Your task to perform on an android device: Open calendar and show me the third week of next month Image 0: 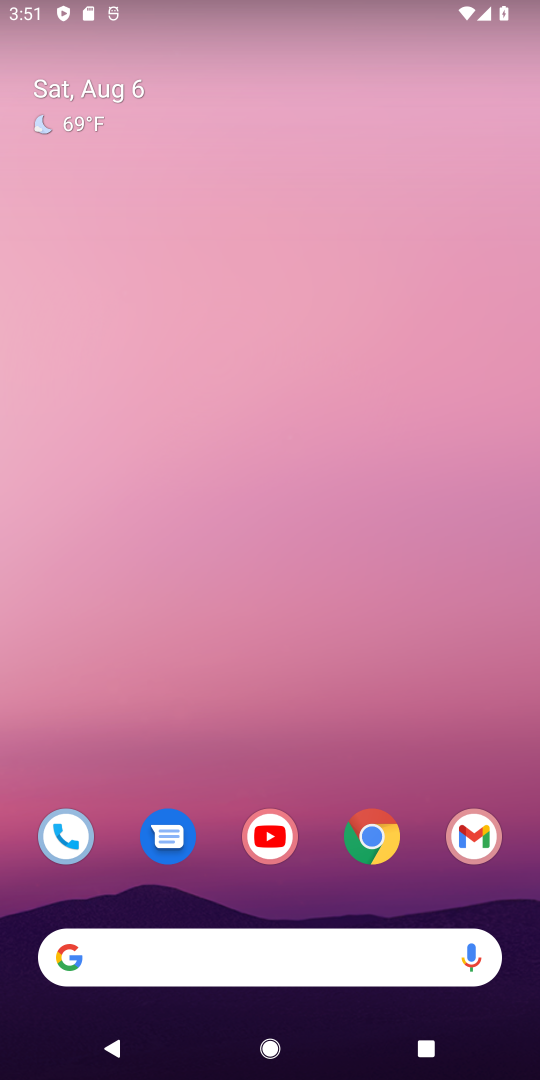
Step 0: drag from (322, 902) to (191, 80)
Your task to perform on an android device: Open calendar and show me the third week of next month Image 1: 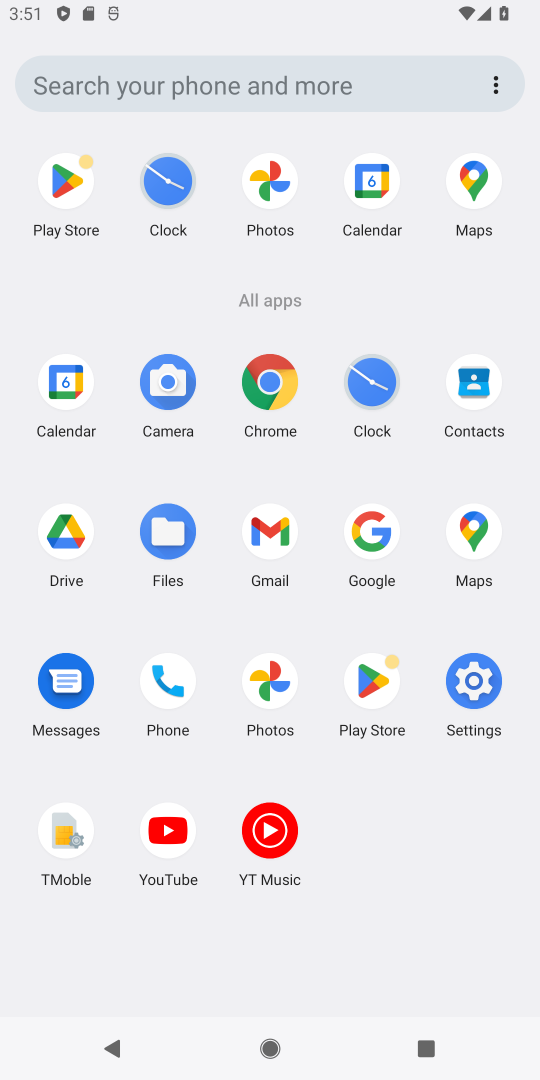
Step 1: click (52, 393)
Your task to perform on an android device: Open calendar and show me the third week of next month Image 2: 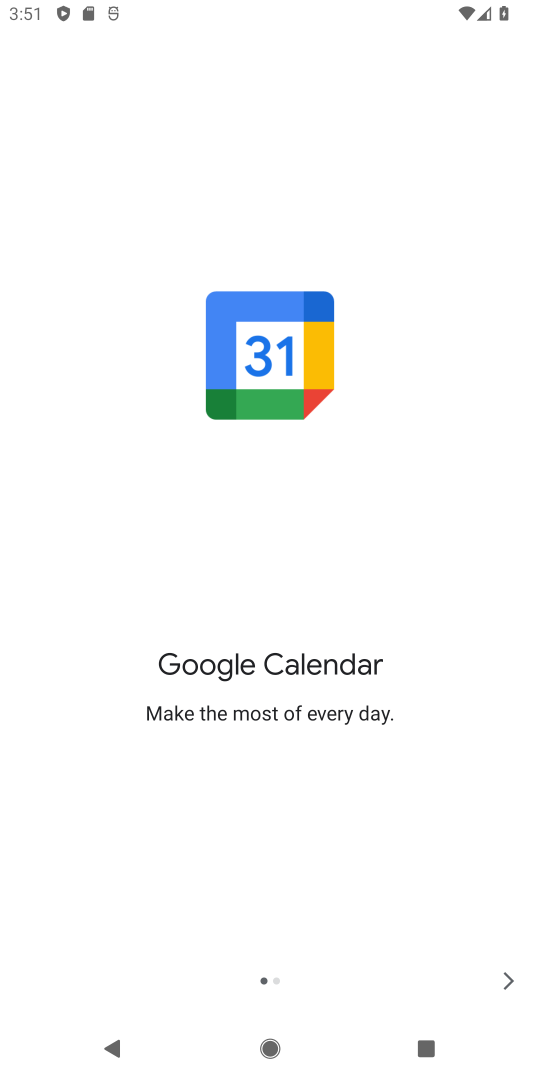
Step 2: click (494, 974)
Your task to perform on an android device: Open calendar and show me the third week of next month Image 3: 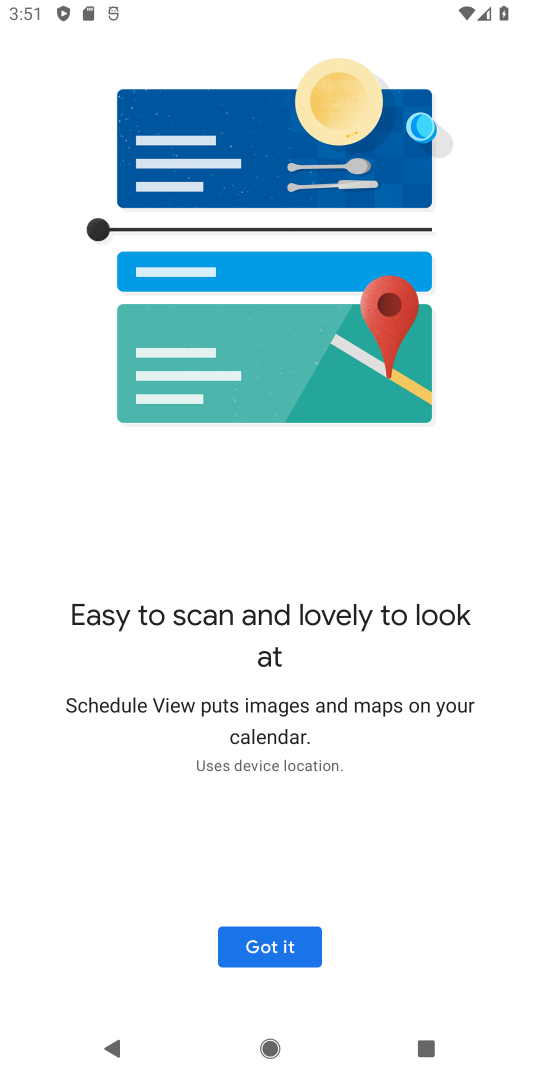
Step 3: click (294, 948)
Your task to perform on an android device: Open calendar and show me the third week of next month Image 4: 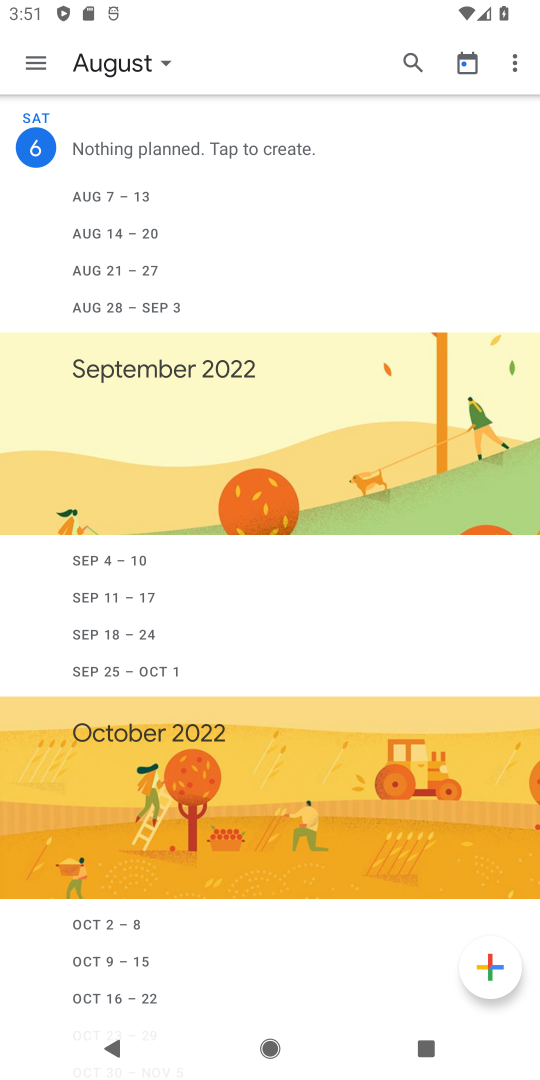
Step 4: click (33, 49)
Your task to perform on an android device: Open calendar and show me the third week of next month Image 5: 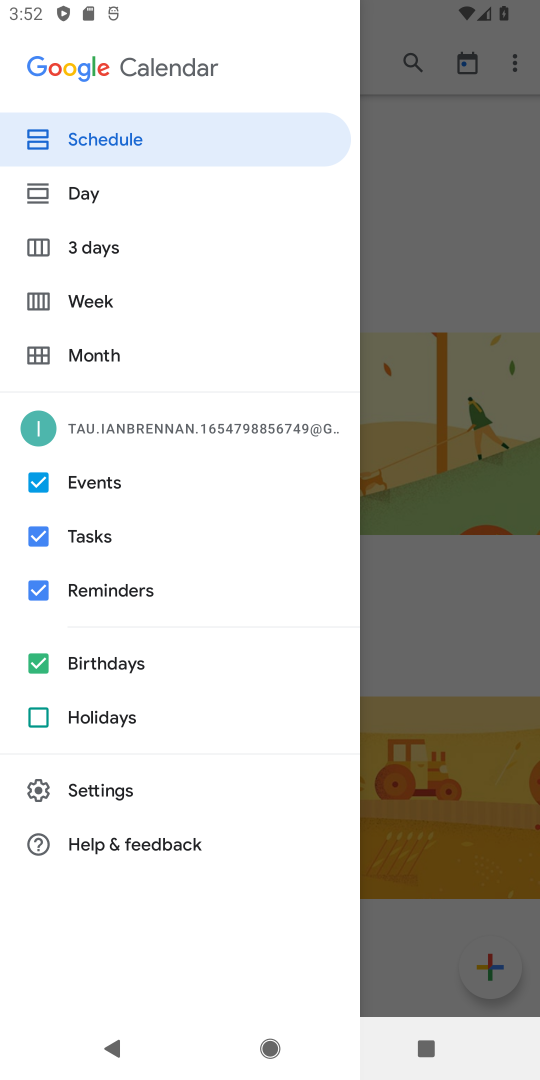
Step 5: click (66, 295)
Your task to perform on an android device: Open calendar and show me the third week of next month Image 6: 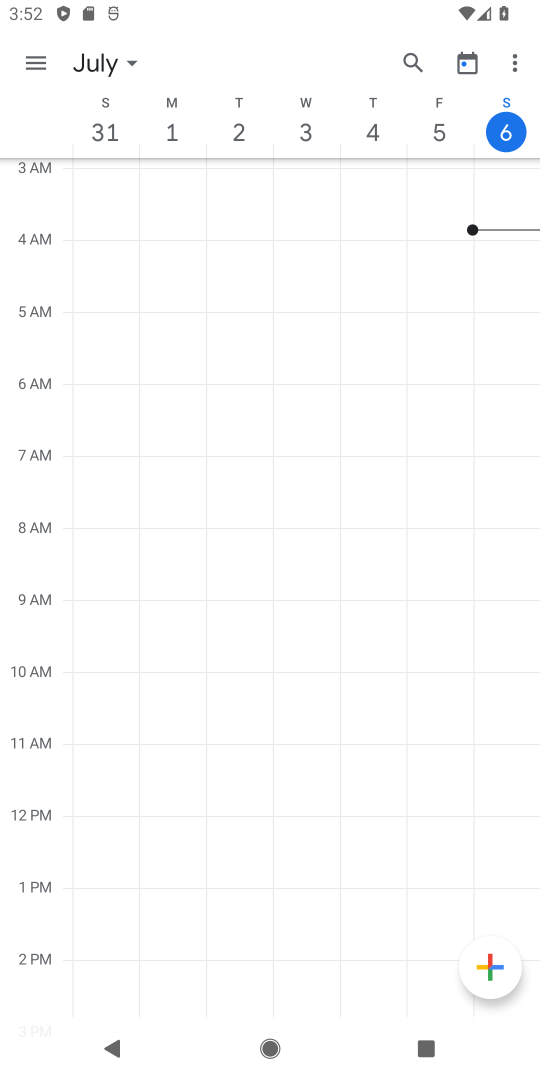
Step 6: task complete